Your task to perform on an android device: Search for pizza restaurants on Maps Image 0: 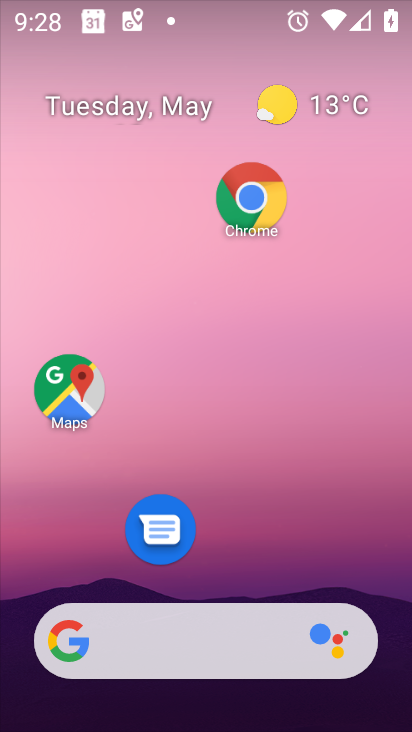
Step 0: click (74, 391)
Your task to perform on an android device: Search for pizza restaurants on Maps Image 1: 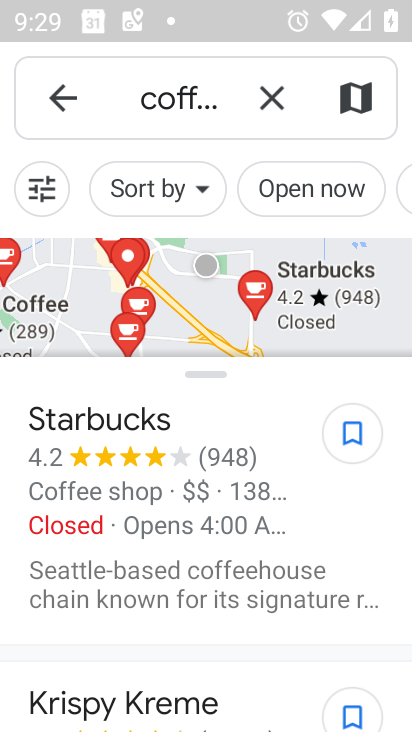
Step 1: click (271, 120)
Your task to perform on an android device: Search for pizza restaurants on Maps Image 2: 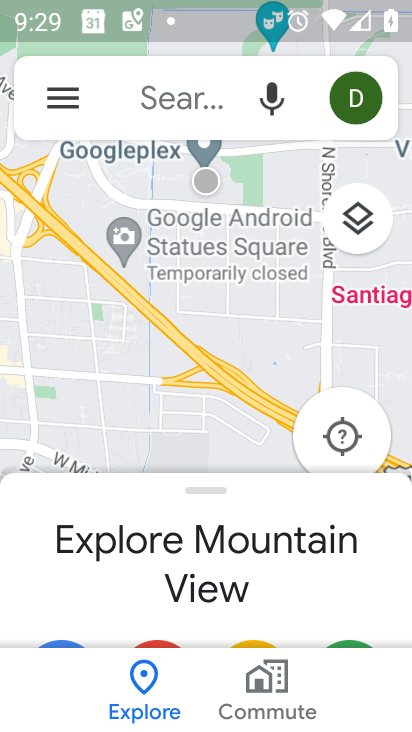
Step 2: click (238, 119)
Your task to perform on an android device: Search for pizza restaurants on Maps Image 3: 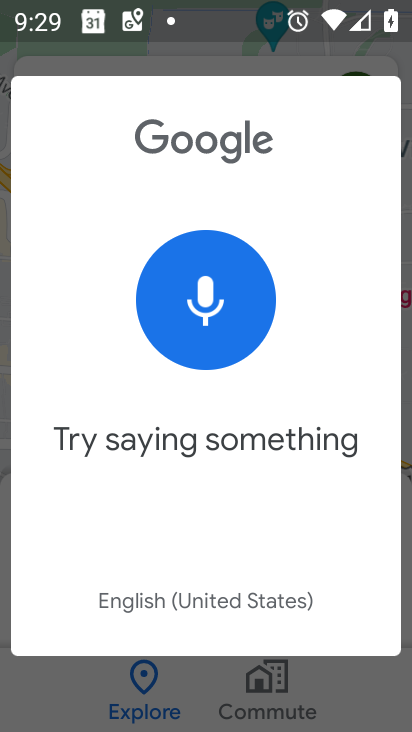
Step 3: click (102, 63)
Your task to perform on an android device: Search for pizza restaurants on Maps Image 4: 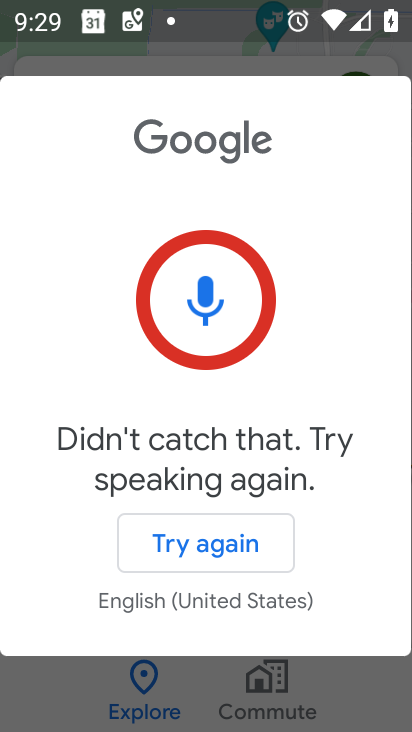
Step 4: click (58, 701)
Your task to perform on an android device: Search for pizza restaurants on Maps Image 5: 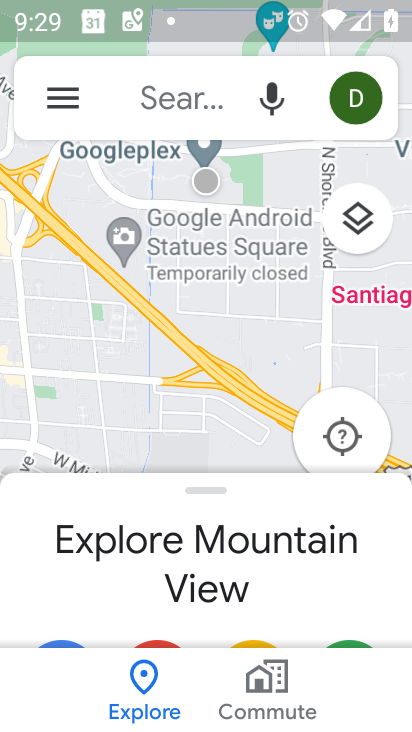
Step 5: click (183, 115)
Your task to perform on an android device: Search for pizza restaurants on Maps Image 6: 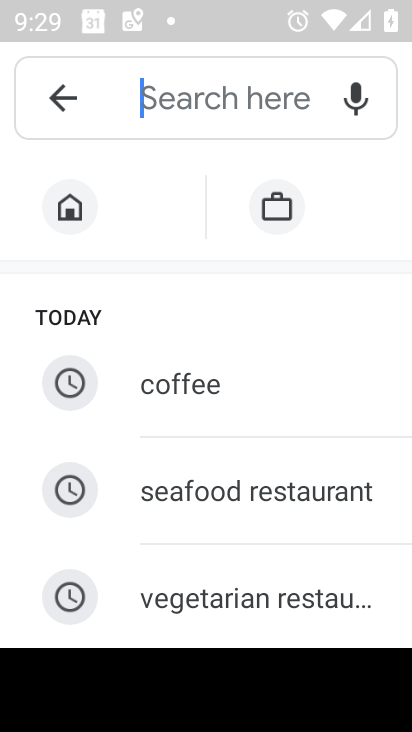
Step 6: type "pizza"
Your task to perform on an android device: Search for pizza restaurants on Maps Image 7: 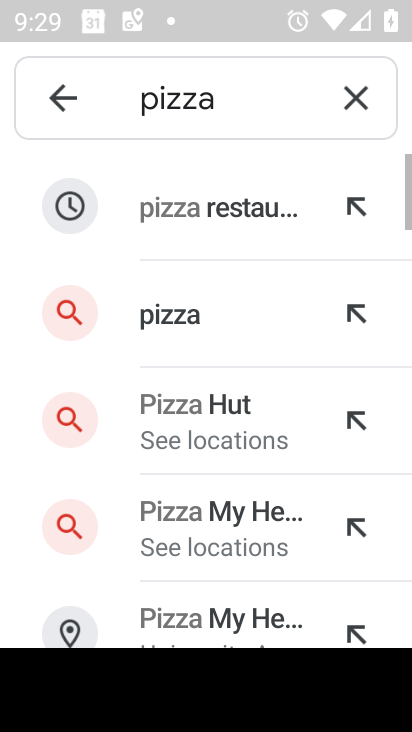
Step 7: click (190, 222)
Your task to perform on an android device: Search for pizza restaurants on Maps Image 8: 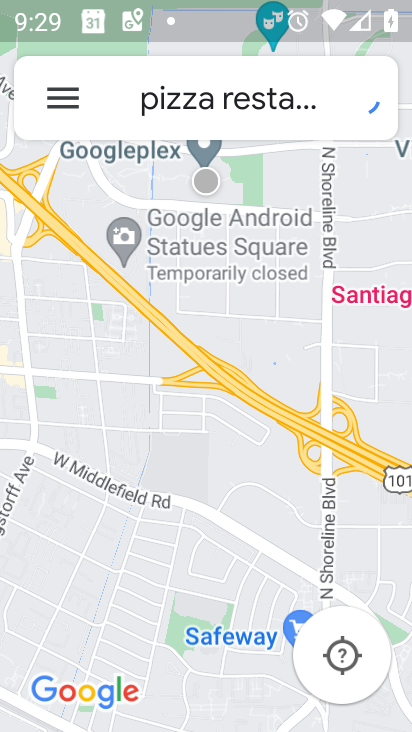
Step 8: task complete